Your task to perform on an android device: Is it going to rain this weekend? Image 0: 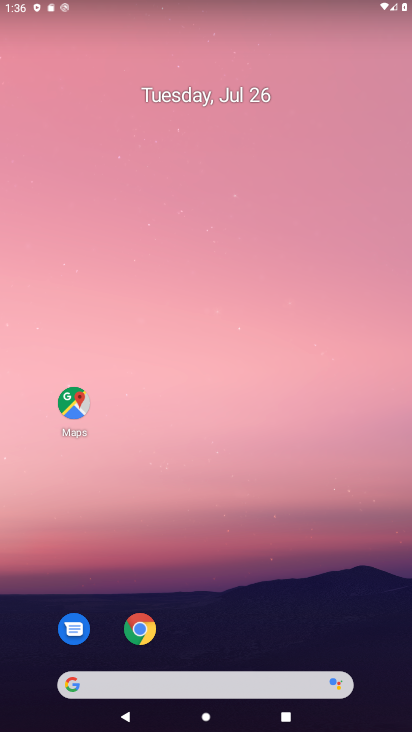
Step 0: drag from (149, 293) to (385, 286)
Your task to perform on an android device: Is it going to rain this weekend? Image 1: 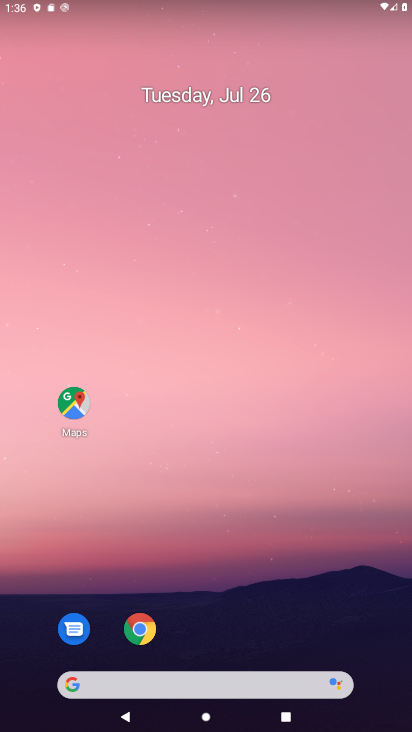
Step 1: drag from (2, 281) to (407, 287)
Your task to perform on an android device: Is it going to rain this weekend? Image 2: 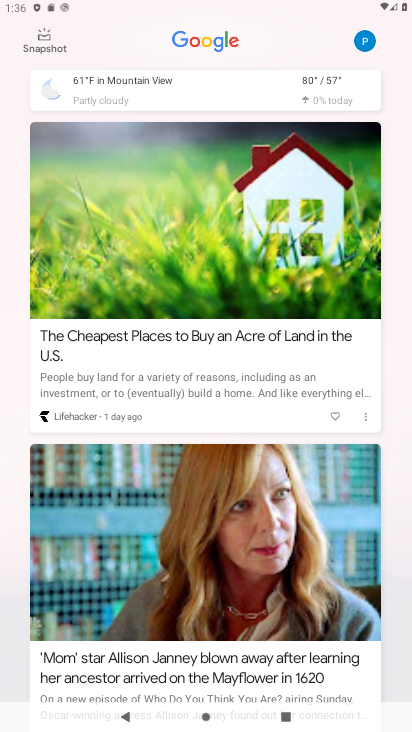
Step 2: click (316, 93)
Your task to perform on an android device: Is it going to rain this weekend? Image 3: 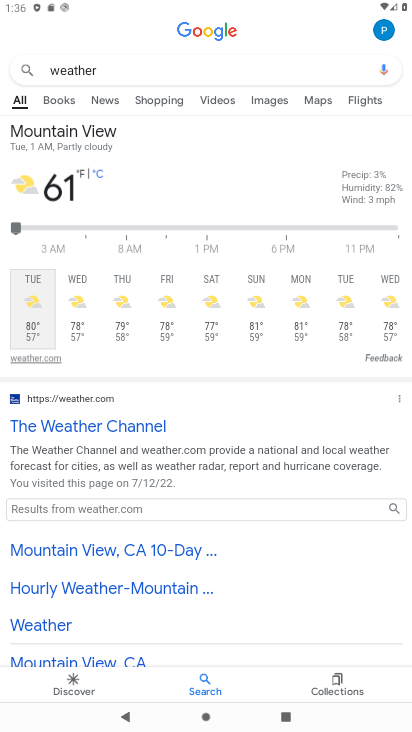
Step 3: task complete